Your task to perform on an android device: all mails in gmail Image 0: 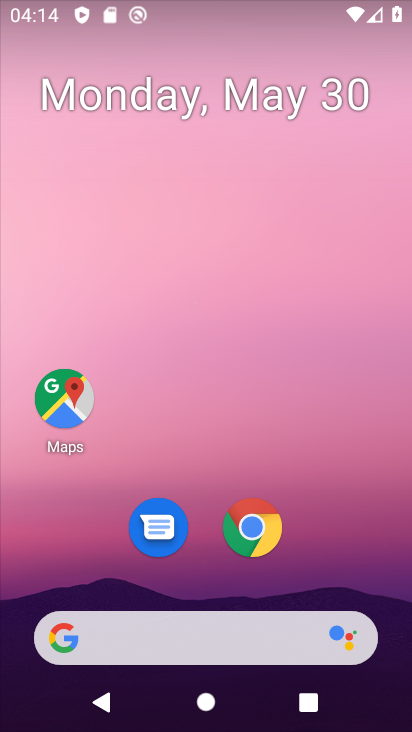
Step 0: drag from (235, 727) to (231, 116)
Your task to perform on an android device: all mails in gmail Image 1: 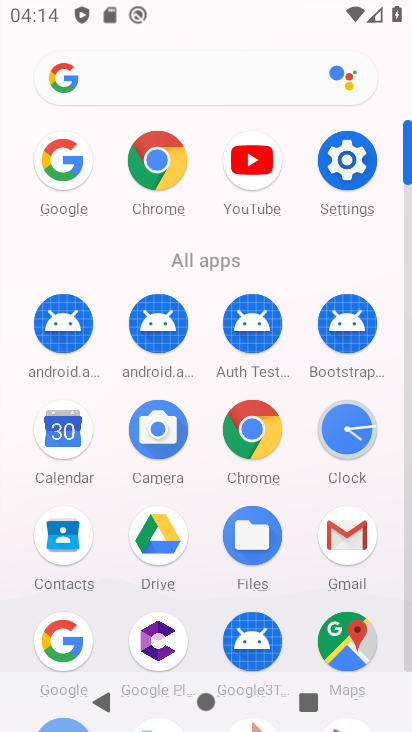
Step 1: click (337, 545)
Your task to perform on an android device: all mails in gmail Image 2: 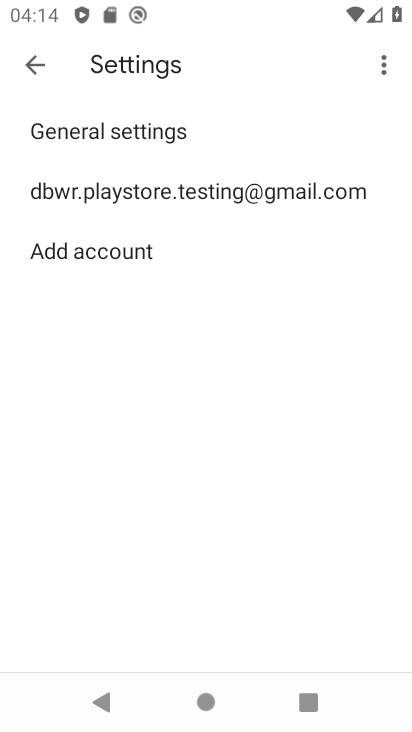
Step 2: click (25, 64)
Your task to perform on an android device: all mails in gmail Image 3: 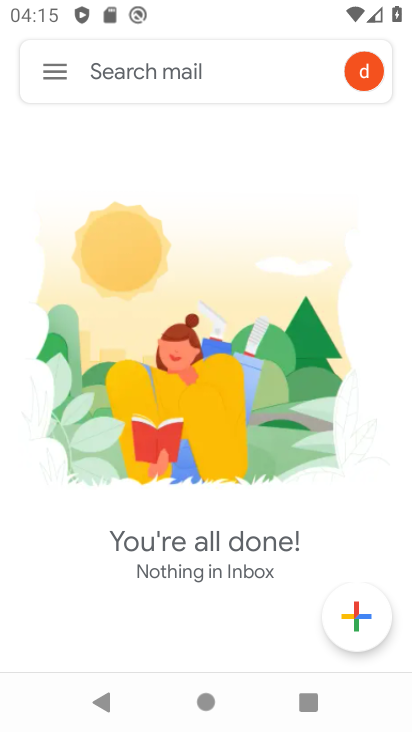
Step 3: click (49, 76)
Your task to perform on an android device: all mails in gmail Image 4: 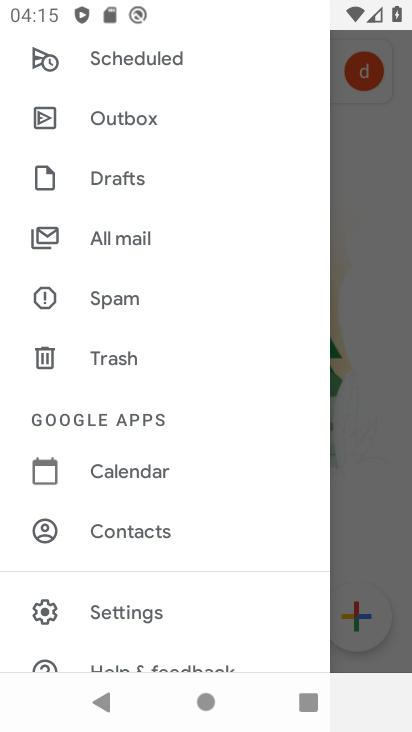
Step 4: click (134, 238)
Your task to perform on an android device: all mails in gmail Image 5: 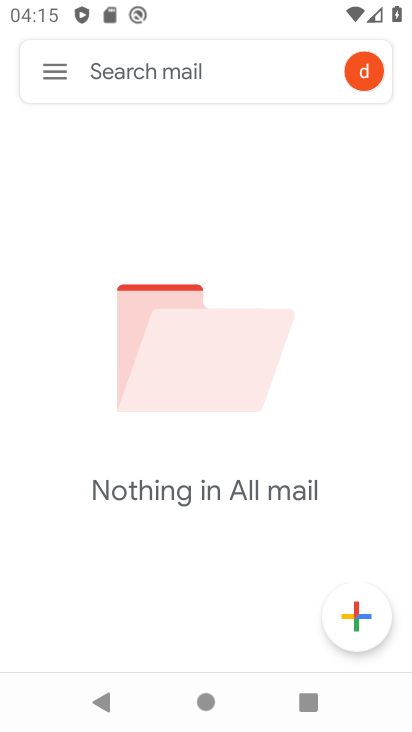
Step 5: task complete